Your task to perform on an android device: Go to Android settings Image 0: 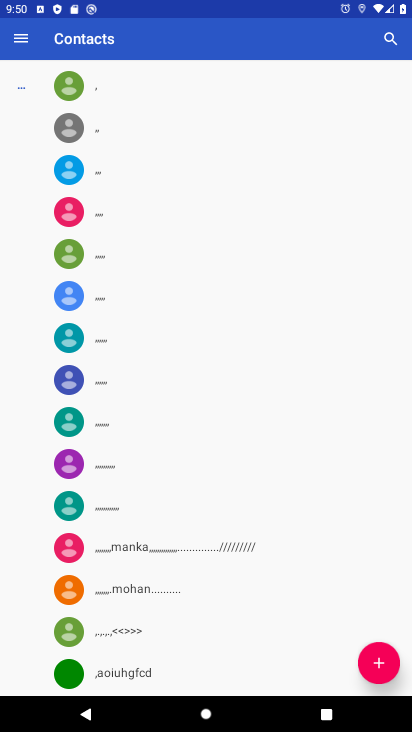
Step 0: press home button
Your task to perform on an android device: Go to Android settings Image 1: 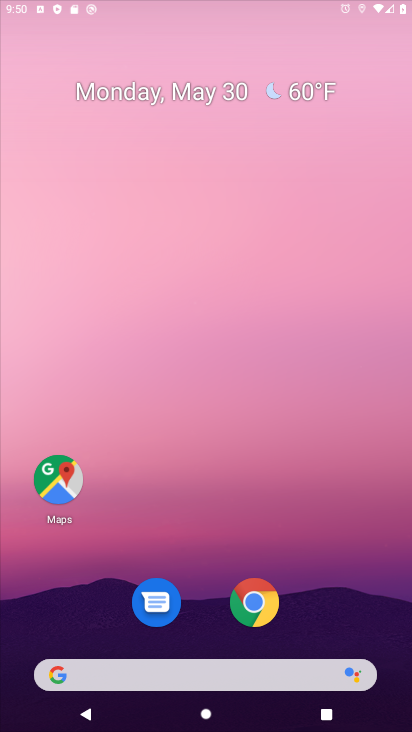
Step 1: drag from (195, 619) to (166, 193)
Your task to perform on an android device: Go to Android settings Image 2: 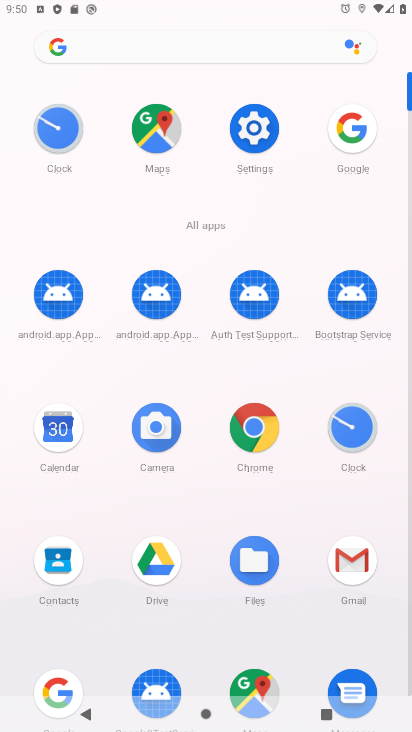
Step 2: click (257, 144)
Your task to perform on an android device: Go to Android settings Image 3: 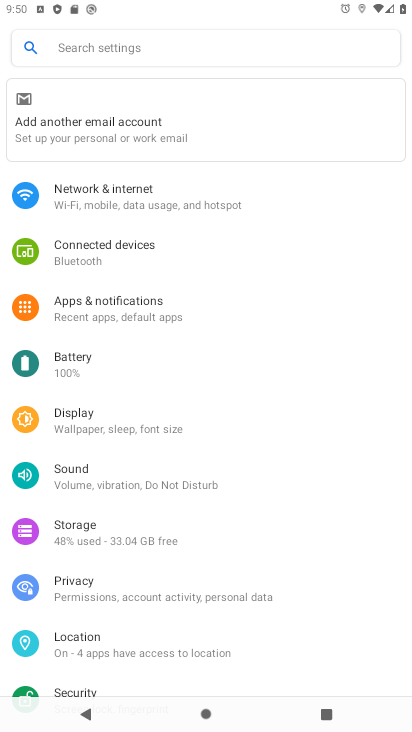
Step 3: task complete